Your task to perform on an android device: Do I have any events this weekend? Image 0: 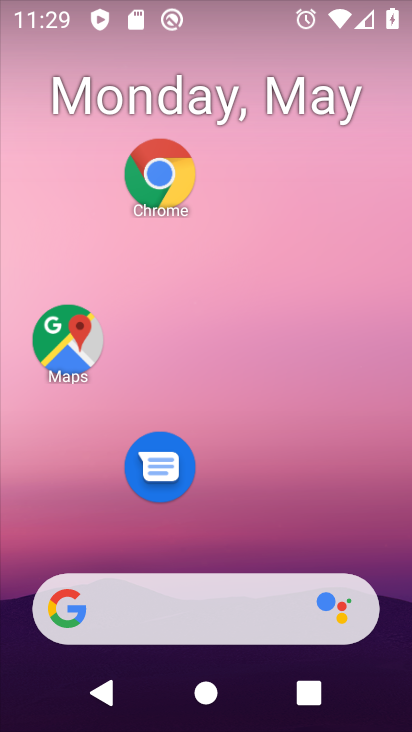
Step 0: drag from (347, 499) to (251, 17)
Your task to perform on an android device: Do I have any events this weekend? Image 1: 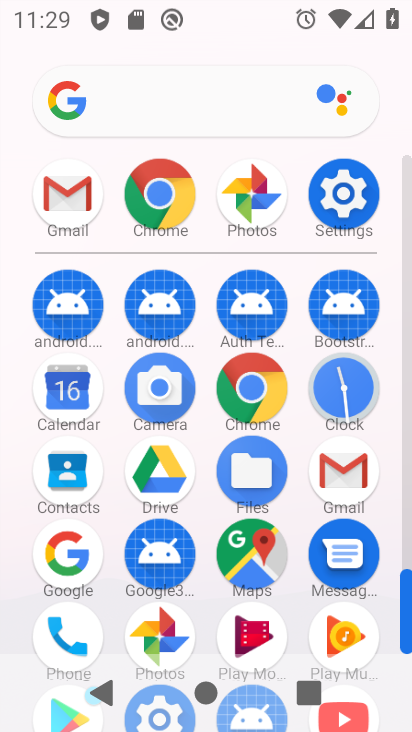
Step 1: click (81, 488)
Your task to perform on an android device: Do I have any events this weekend? Image 2: 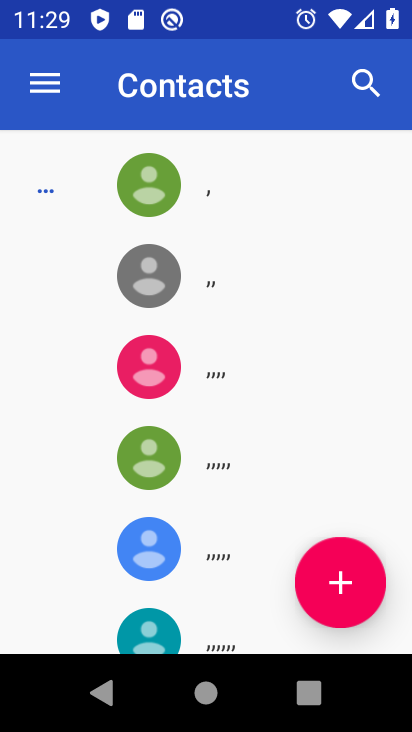
Step 2: click (103, 695)
Your task to perform on an android device: Do I have any events this weekend? Image 3: 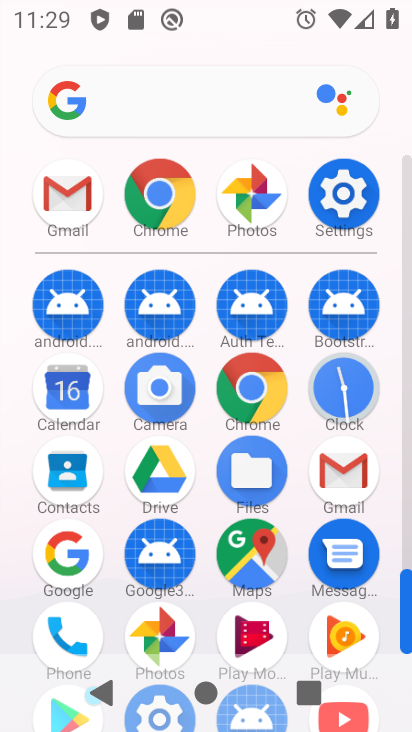
Step 3: click (68, 407)
Your task to perform on an android device: Do I have any events this weekend? Image 4: 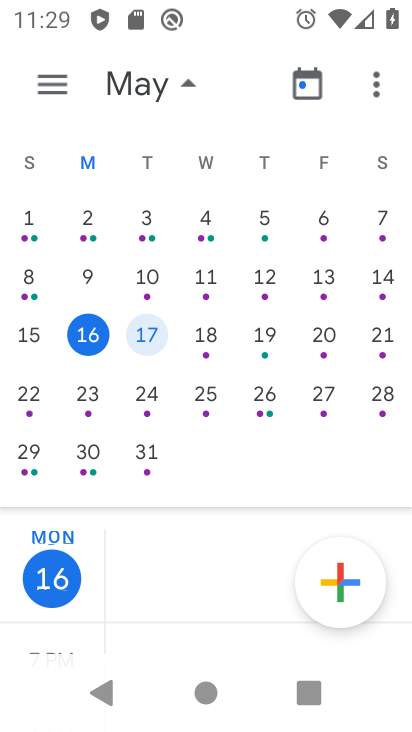
Step 4: task complete